Your task to perform on an android device: change the clock display to show seconds Image 0: 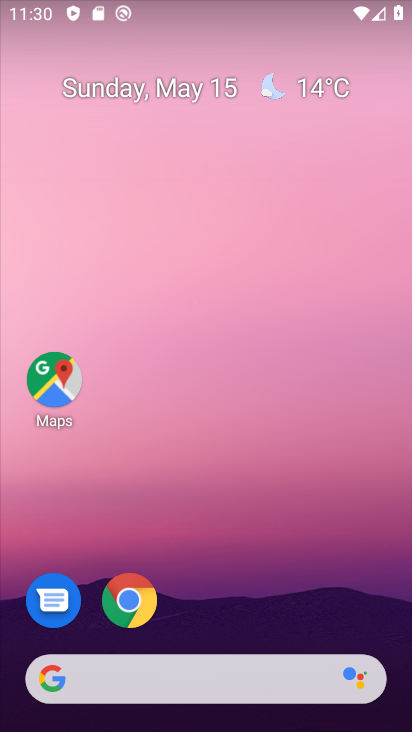
Step 0: drag from (398, 679) to (342, 64)
Your task to perform on an android device: change the clock display to show seconds Image 1: 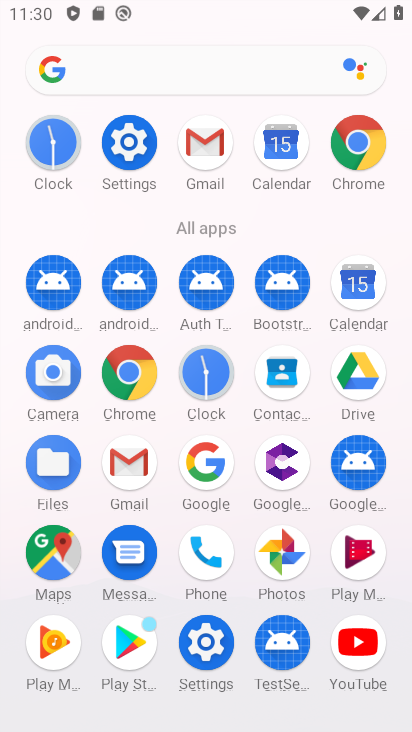
Step 1: click (203, 367)
Your task to perform on an android device: change the clock display to show seconds Image 2: 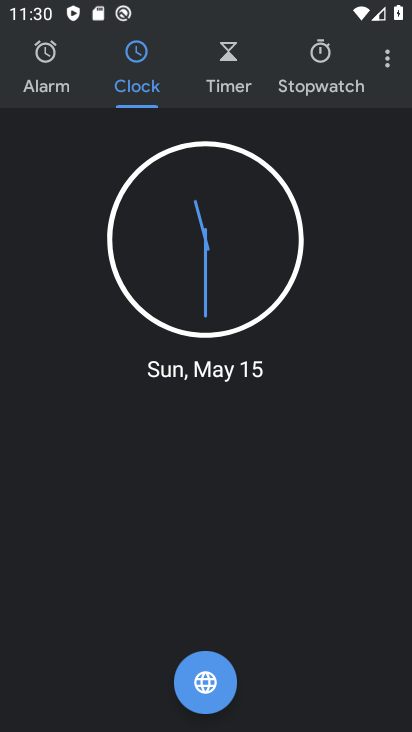
Step 2: click (385, 64)
Your task to perform on an android device: change the clock display to show seconds Image 3: 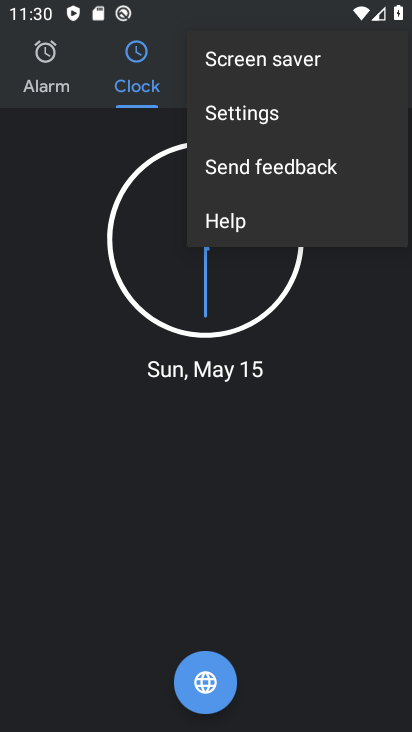
Step 3: click (244, 112)
Your task to perform on an android device: change the clock display to show seconds Image 4: 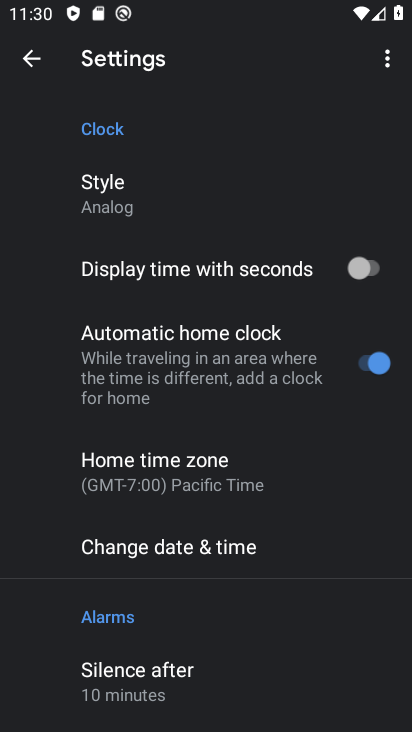
Step 4: click (369, 262)
Your task to perform on an android device: change the clock display to show seconds Image 5: 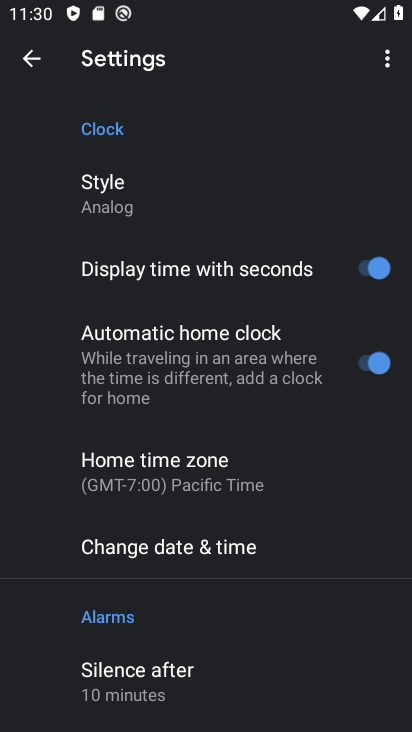
Step 5: task complete